Your task to perform on an android device: choose inbox layout in the gmail app Image 0: 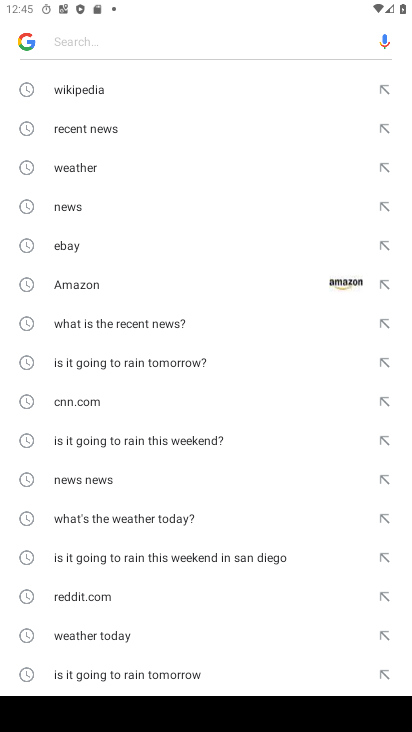
Step 0: press home button
Your task to perform on an android device: choose inbox layout in the gmail app Image 1: 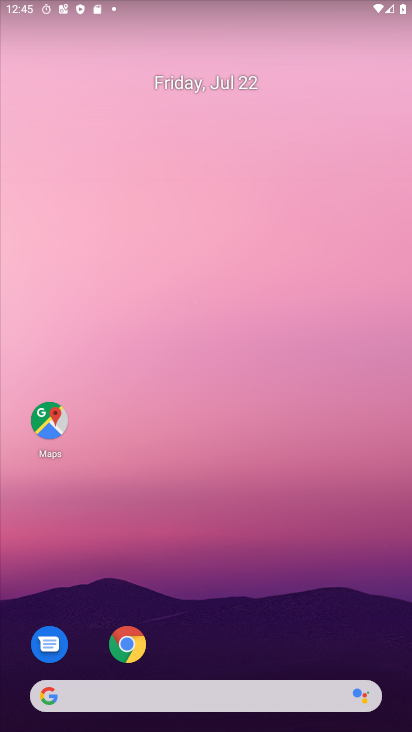
Step 1: drag from (242, 583) to (247, 79)
Your task to perform on an android device: choose inbox layout in the gmail app Image 2: 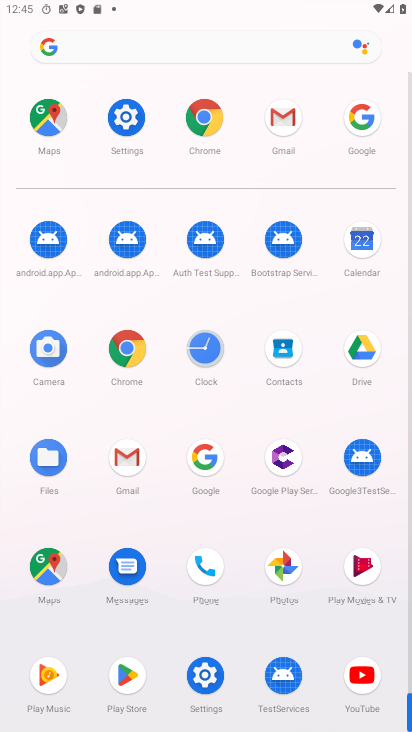
Step 2: click (131, 463)
Your task to perform on an android device: choose inbox layout in the gmail app Image 3: 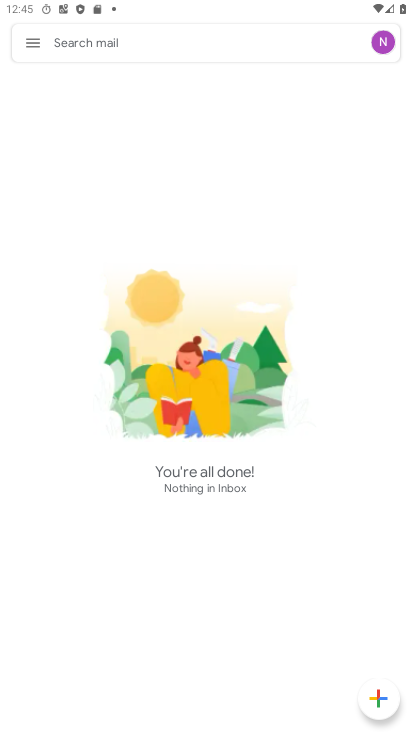
Step 3: click (30, 50)
Your task to perform on an android device: choose inbox layout in the gmail app Image 4: 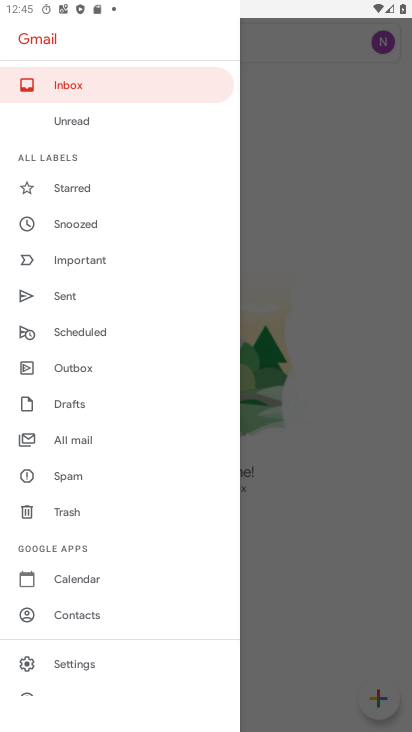
Step 4: click (86, 664)
Your task to perform on an android device: choose inbox layout in the gmail app Image 5: 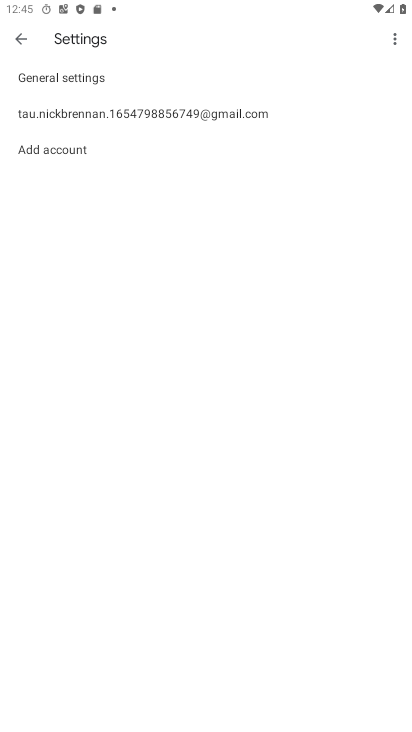
Step 5: click (114, 110)
Your task to perform on an android device: choose inbox layout in the gmail app Image 6: 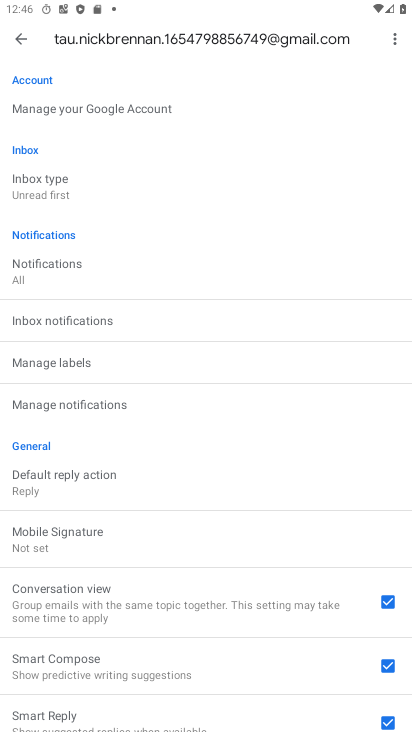
Step 6: task complete